Your task to perform on an android device: turn on data saver in the chrome app Image 0: 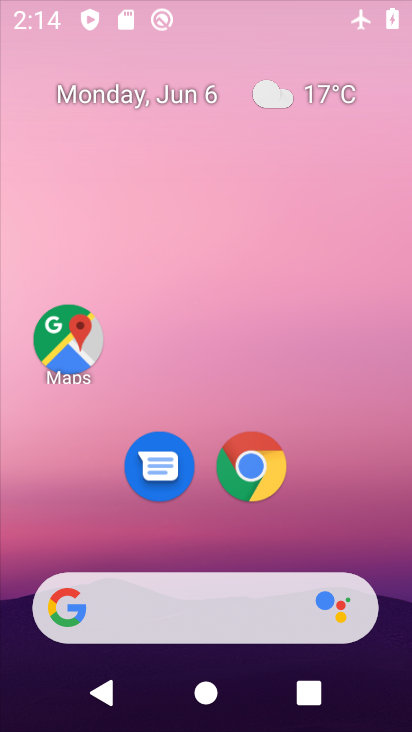
Step 0: drag from (290, 650) to (243, 105)
Your task to perform on an android device: turn on data saver in the chrome app Image 1: 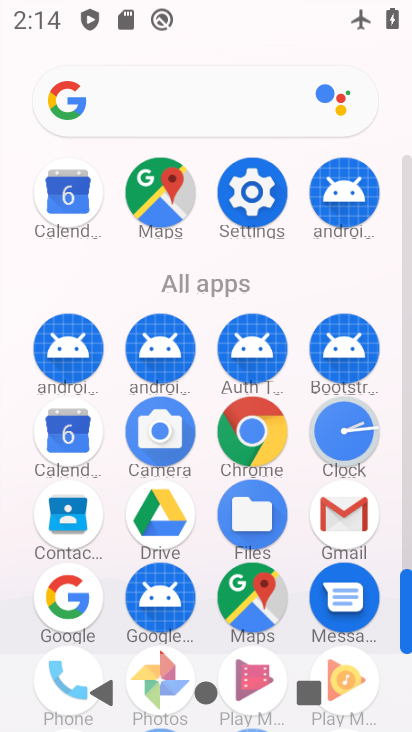
Step 1: drag from (258, 624) to (185, 133)
Your task to perform on an android device: turn on data saver in the chrome app Image 2: 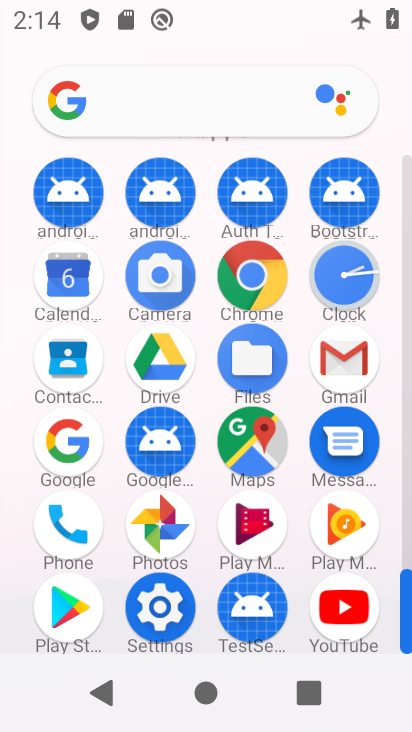
Step 2: click (238, 256)
Your task to perform on an android device: turn on data saver in the chrome app Image 3: 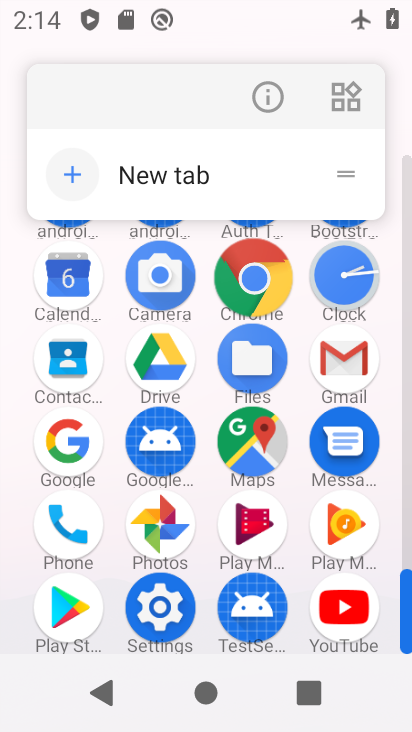
Step 3: click (257, 270)
Your task to perform on an android device: turn on data saver in the chrome app Image 4: 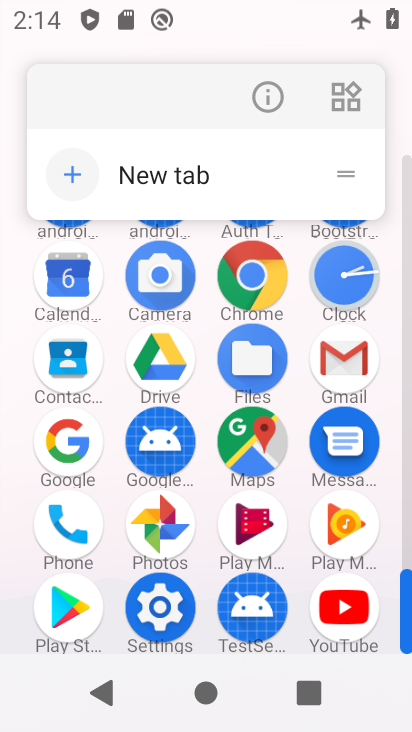
Step 4: click (256, 270)
Your task to perform on an android device: turn on data saver in the chrome app Image 5: 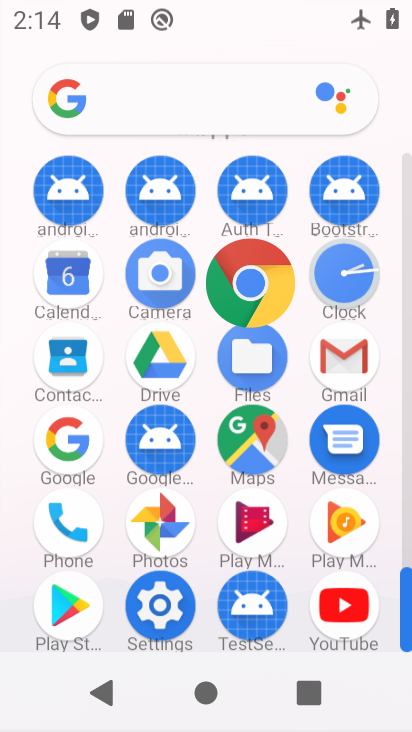
Step 5: click (249, 276)
Your task to perform on an android device: turn on data saver in the chrome app Image 6: 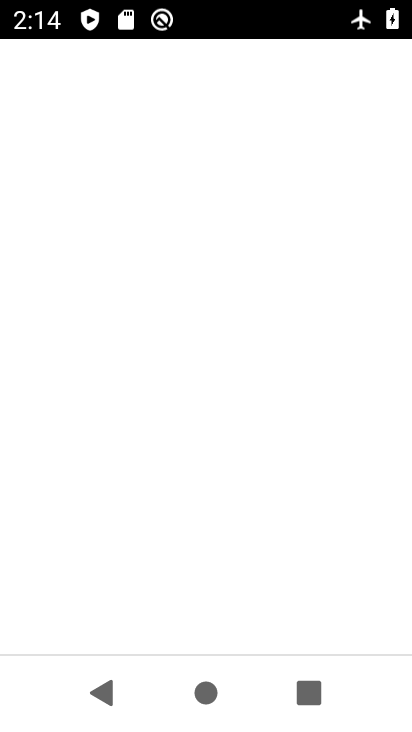
Step 6: click (243, 281)
Your task to perform on an android device: turn on data saver in the chrome app Image 7: 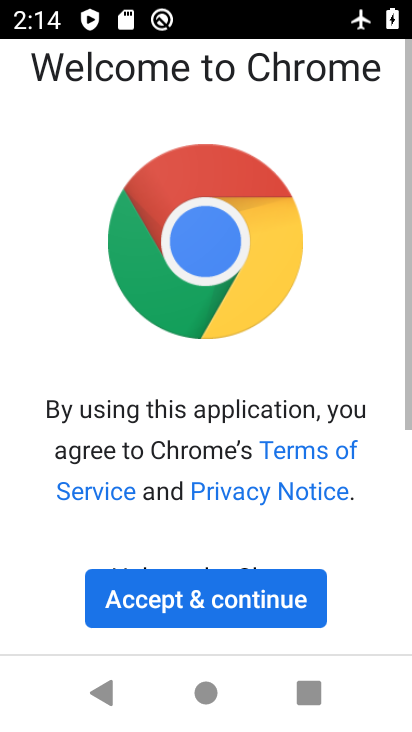
Step 7: click (217, 596)
Your task to perform on an android device: turn on data saver in the chrome app Image 8: 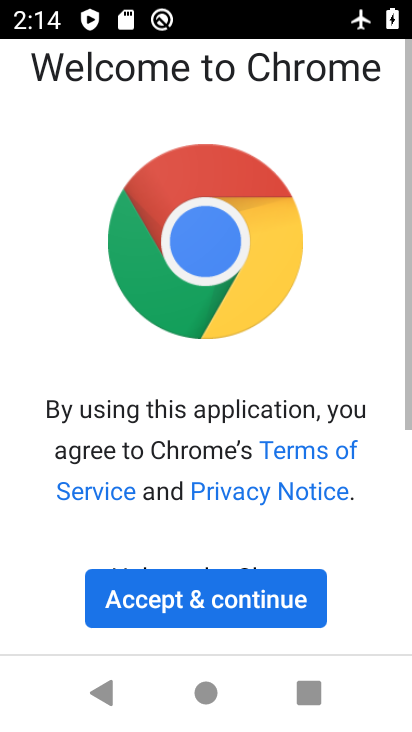
Step 8: click (217, 597)
Your task to perform on an android device: turn on data saver in the chrome app Image 9: 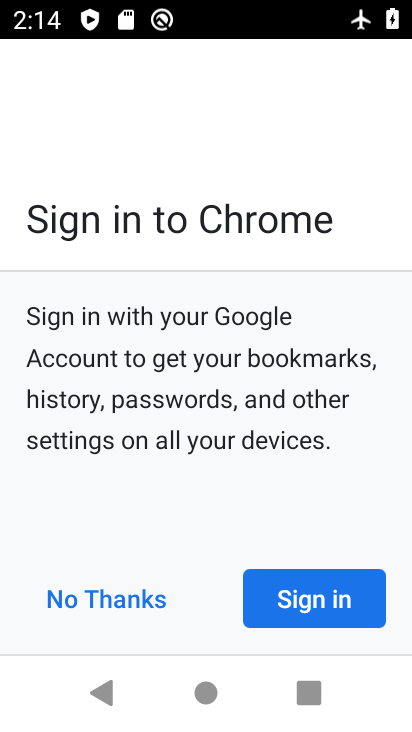
Step 9: click (217, 597)
Your task to perform on an android device: turn on data saver in the chrome app Image 10: 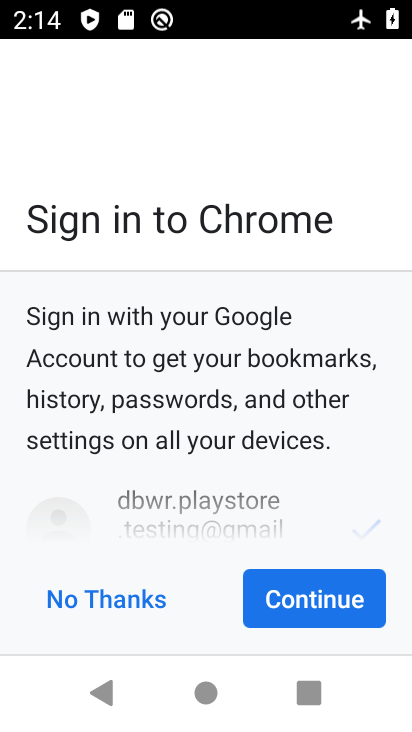
Step 10: click (218, 597)
Your task to perform on an android device: turn on data saver in the chrome app Image 11: 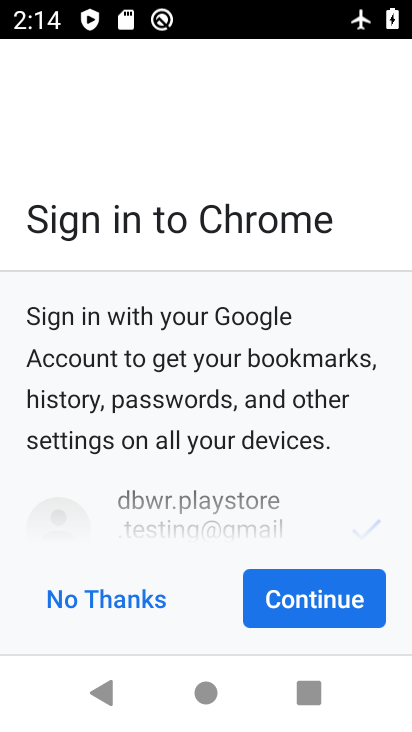
Step 11: click (311, 591)
Your task to perform on an android device: turn on data saver in the chrome app Image 12: 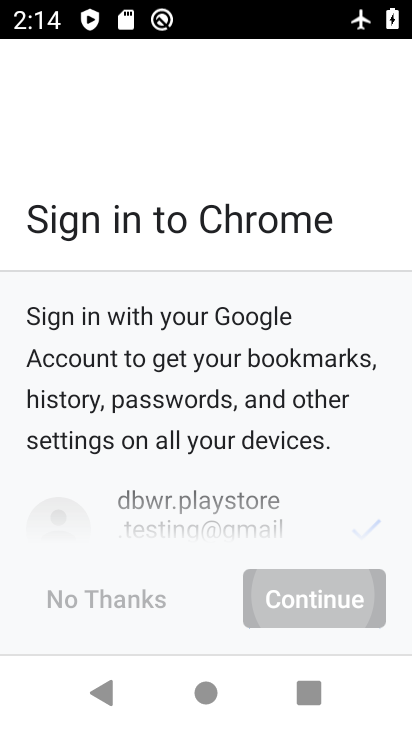
Step 12: click (312, 592)
Your task to perform on an android device: turn on data saver in the chrome app Image 13: 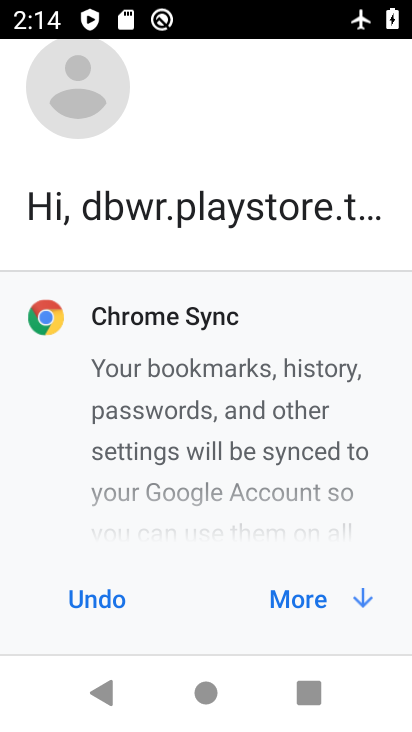
Step 13: click (312, 592)
Your task to perform on an android device: turn on data saver in the chrome app Image 14: 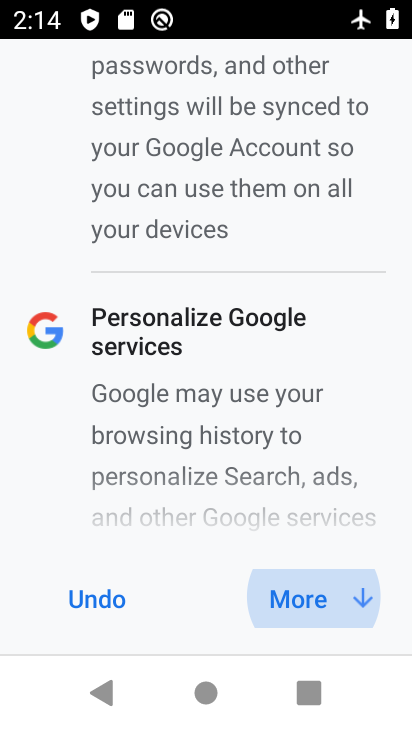
Step 14: click (312, 592)
Your task to perform on an android device: turn on data saver in the chrome app Image 15: 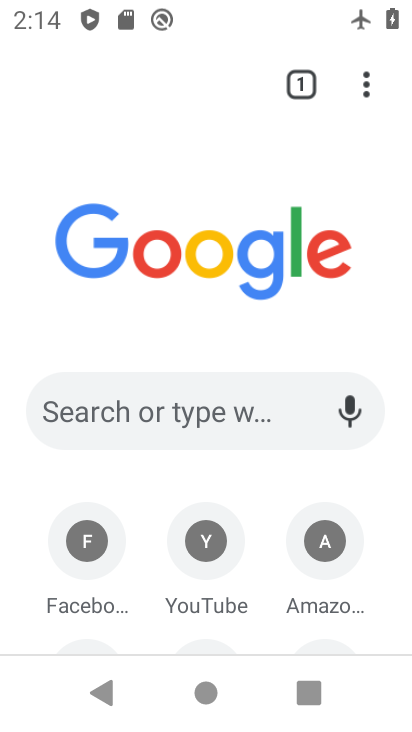
Step 15: click (360, 95)
Your task to perform on an android device: turn on data saver in the chrome app Image 16: 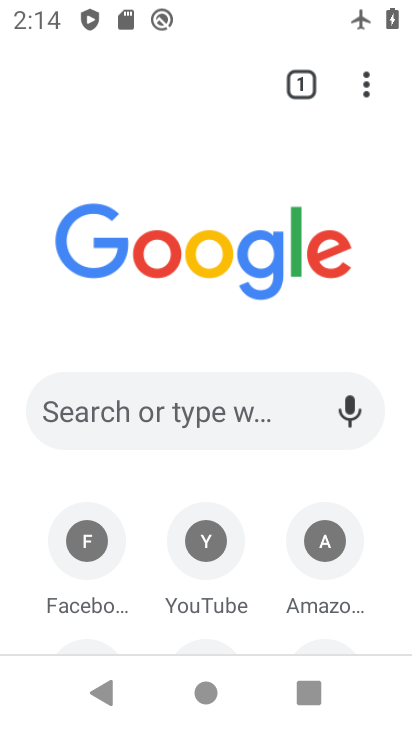
Step 16: click (361, 86)
Your task to perform on an android device: turn on data saver in the chrome app Image 17: 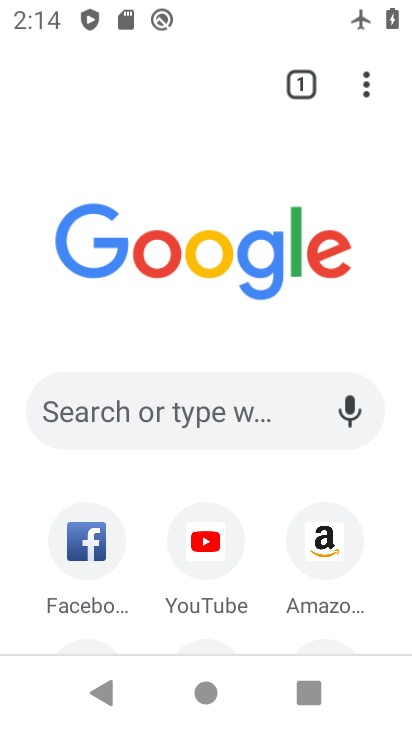
Step 17: click (364, 85)
Your task to perform on an android device: turn on data saver in the chrome app Image 18: 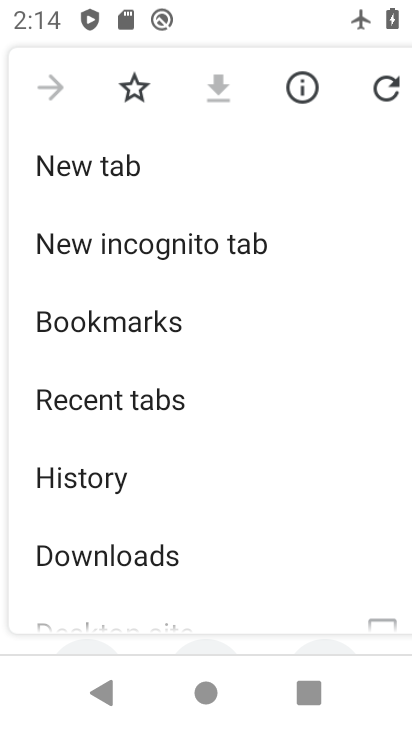
Step 18: drag from (86, 196) to (88, 106)
Your task to perform on an android device: turn on data saver in the chrome app Image 19: 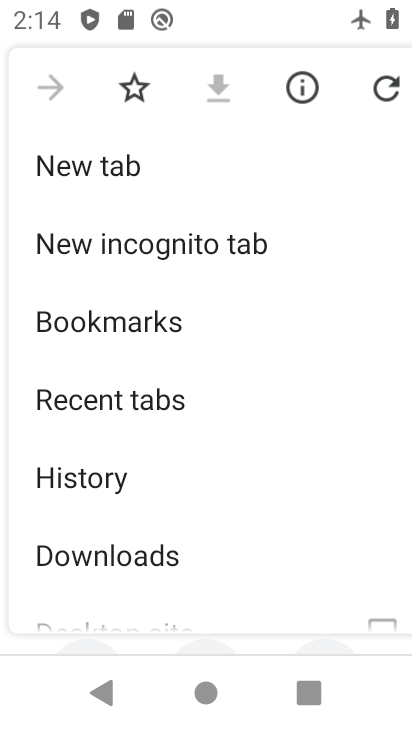
Step 19: drag from (119, 131) to (91, 86)
Your task to perform on an android device: turn on data saver in the chrome app Image 20: 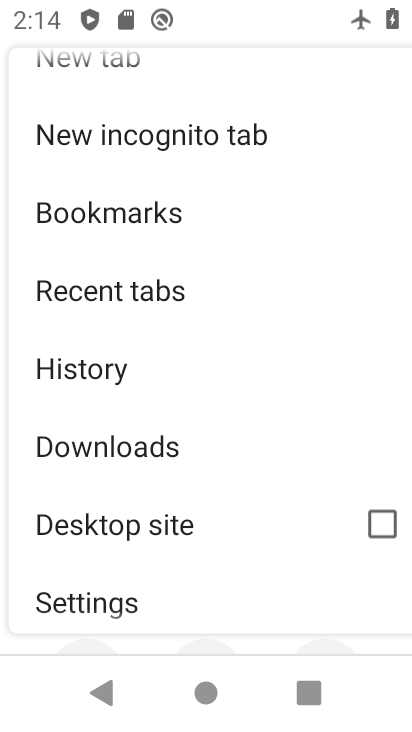
Step 20: drag from (138, 374) to (140, 109)
Your task to perform on an android device: turn on data saver in the chrome app Image 21: 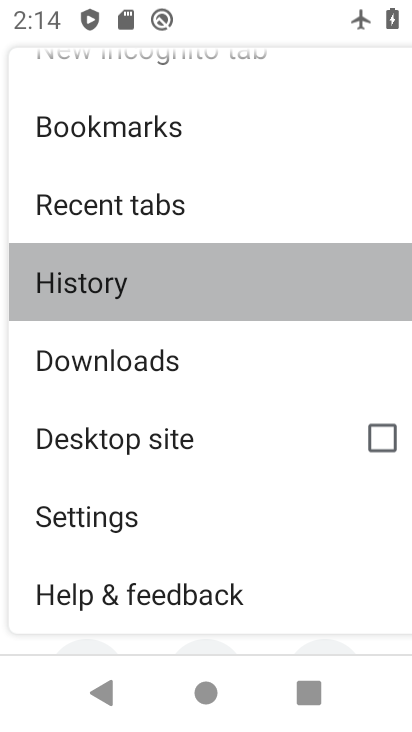
Step 21: drag from (146, 396) to (160, 194)
Your task to perform on an android device: turn on data saver in the chrome app Image 22: 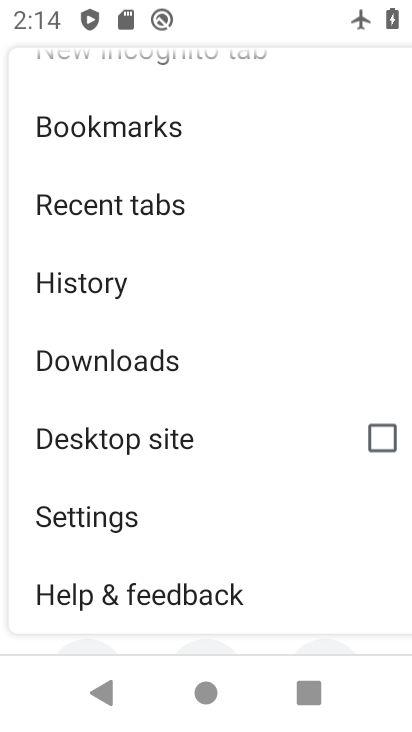
Step 22: click (84, 515)
Your task to perform on an android device: turn on data saver in the chrome app Image 23: 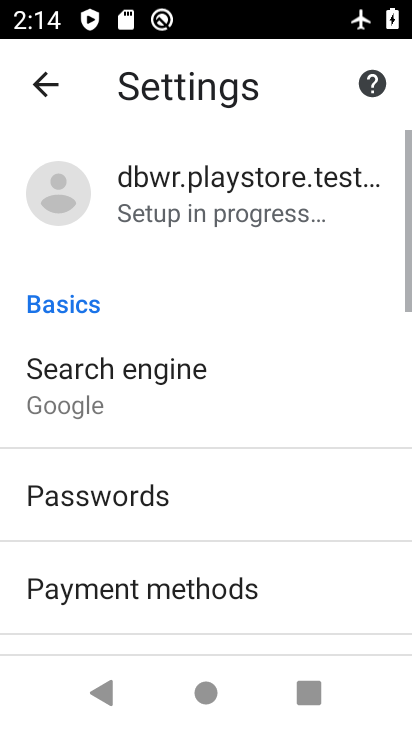
Step 23: drag from (156, 466) to (156, 200)
Your task to perform on an android device: turn on data saver in the chrome app Image 24: 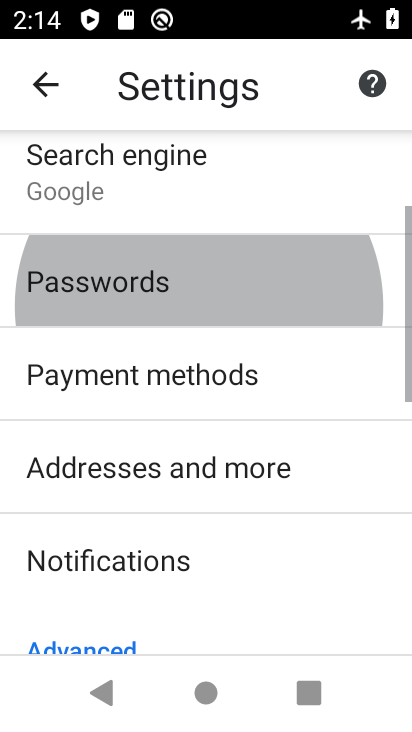
Step 24: drag from (202, 480) to (215, 181)
Your task to perform on an android device: turn on data saver in the chrome app Image 25: 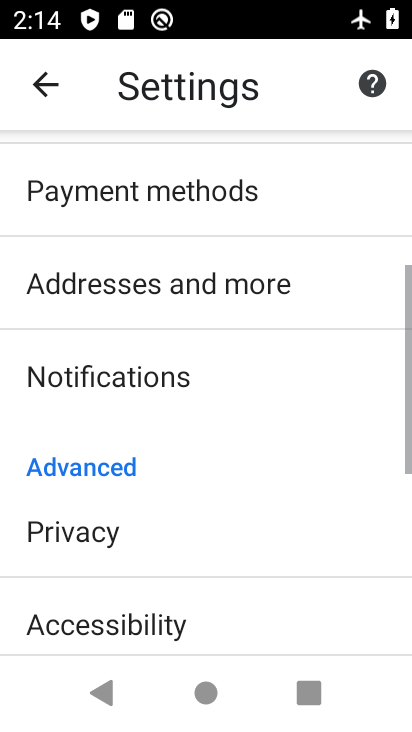
Step 25: drag from (236, 392) to (236, 188)
Your task to perform on an android device: turn on data saver in the chrome app Image 26: 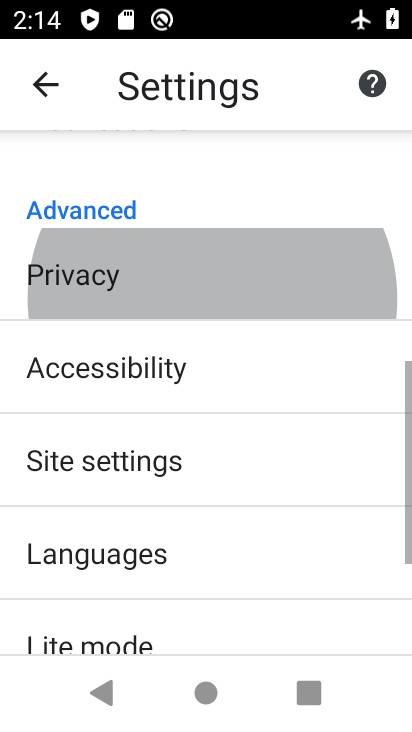
Step 26: drag from (199, 395) to (201, 188)
Your task to perform on an android device: turn on data saver in the chrome app Image 27: 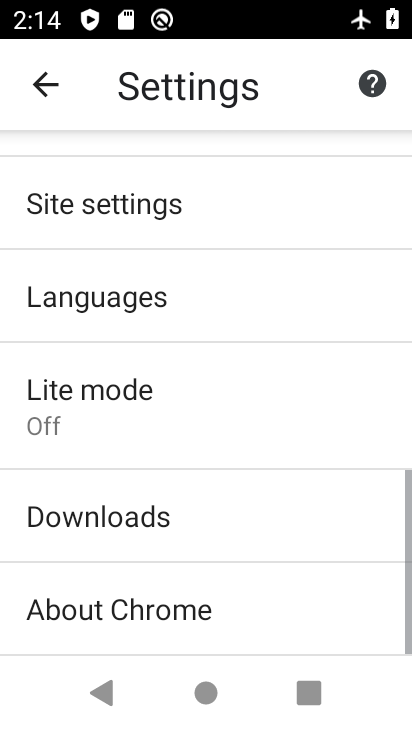
Step 27: drag from (186, 410) to (196, 253)
Your task to perform on an android device: turn on data saver in the chrome app Image 28: 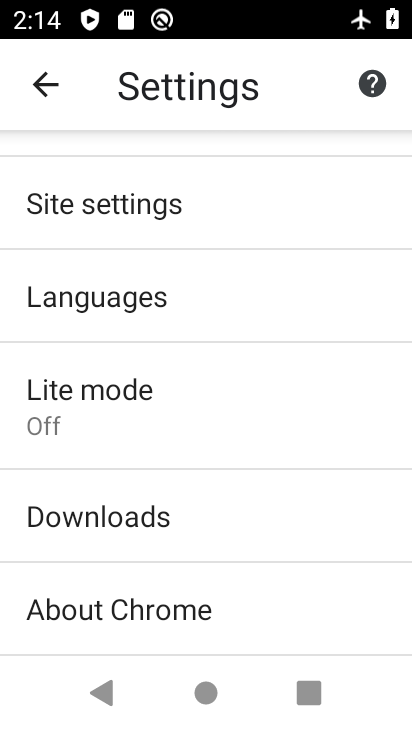
Step 28: click (76, 385)
Your task to perform on an android device: turn on data saver in the chrome app Image 29: 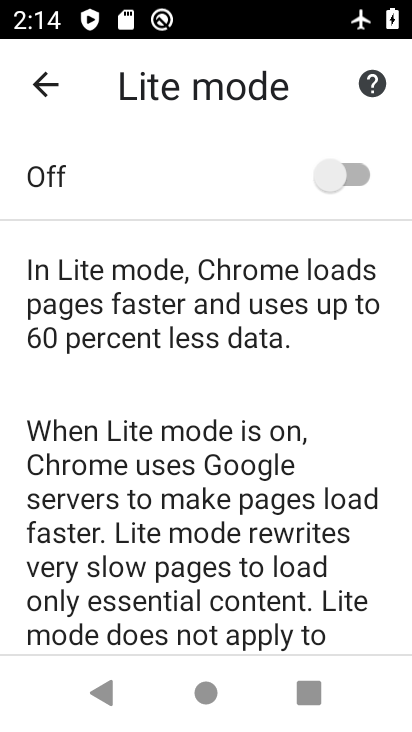
Step 29: click (340, 176)
Your task to perform on an android device: turn on data saver in the chrome app Image 30: 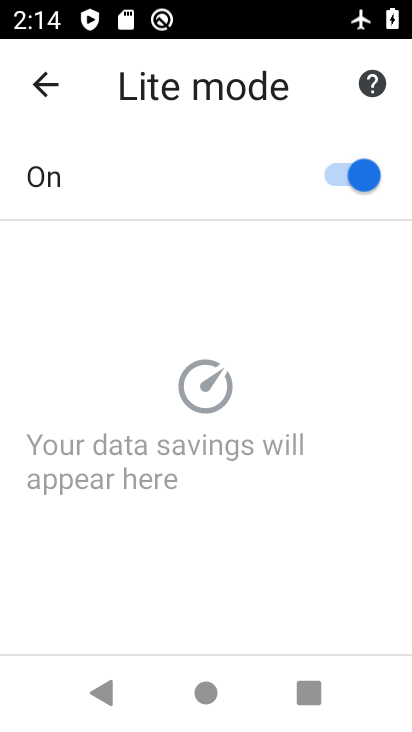
Step 30: task complete